Your task to perform on an android device: open app "Google Chat" Image 0: 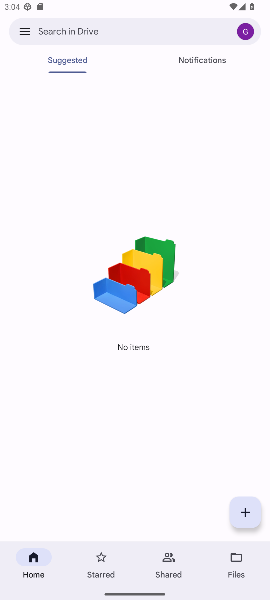
Step 0: press home button
Your task to perform on an android device: open app "Google Chat" Image 1: 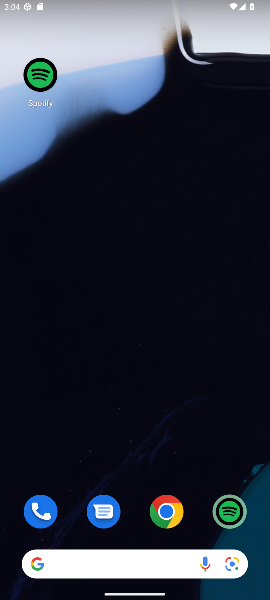
Step 1: drag from (139, 528) to (101, 120)
Your task to perform on an android device: open app "Google Chat" Image 2: 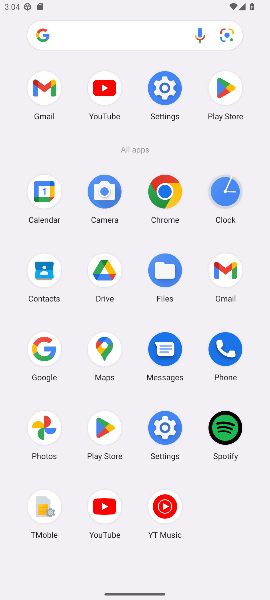
Step 2: click (220, 97)
Your task to perform on an android device: open app "Google Chat" Image 3: 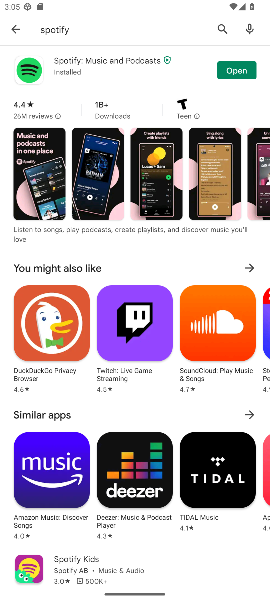
Step 3: click (11, 32)
Your task to perform on an android device: open app "Google Chat" Image 4: 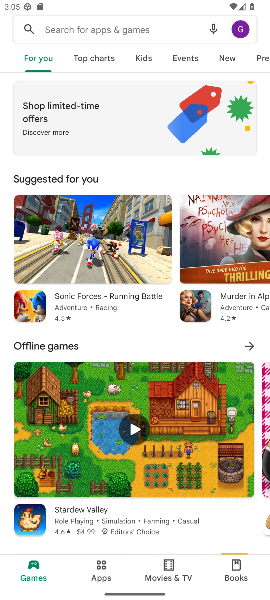
Step 4: click (103, 34)
Your task to perform on an android device: open app "Google Chat" Image 5: 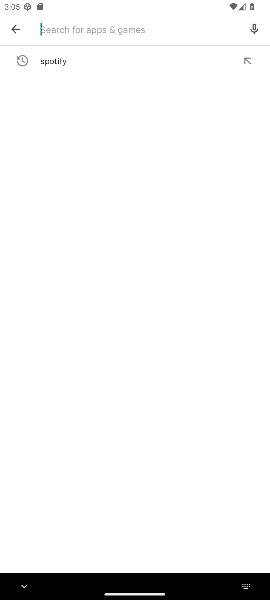
Step 5: type "google chat"
Your task to perform on an android device: open app "Google Chat" Image 6: 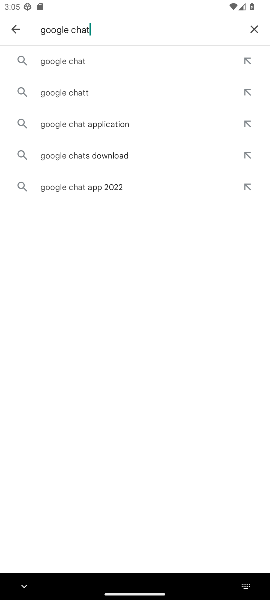
Step 6: click (66, 56)
Your task to perform on an android device: open app "Google Chat" Image 7: 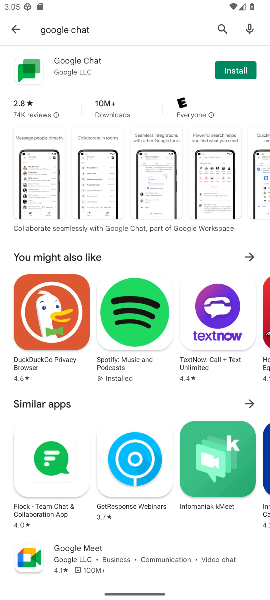
Step 7: click (240, 70)
Your task to perform on an android device: open app "Google Chat" Image 8: 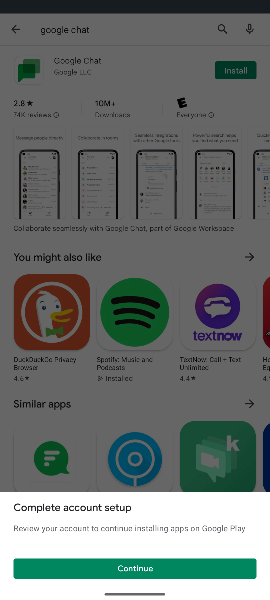
Step 8: click (121, 566)
Your task to perform on an android device: open app "Google Chat" Image 9: 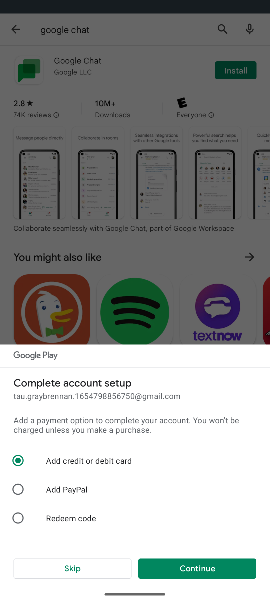
Step 9: click (105, 567)
Your task to perform on an android device: open app "Google Chat" Image 10: 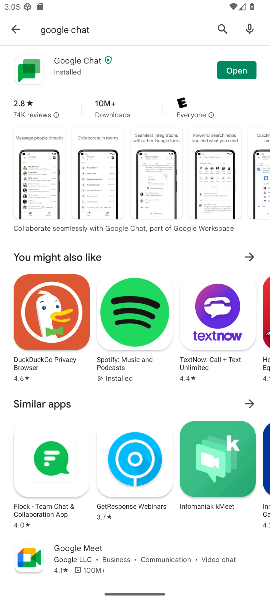
Step 10: click (232, 72)
Your task to perform on an android device: open app "Google Chat" Image 11: 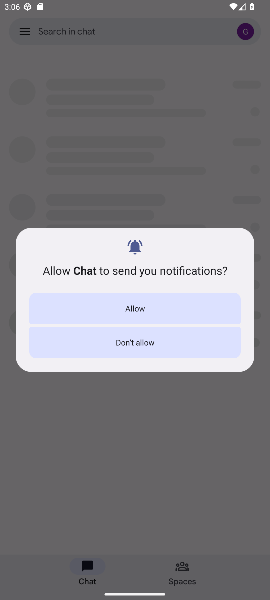
Step 11: click (121, 302)
Your task to perform on an android device: open app "Google Chat" Image 12: 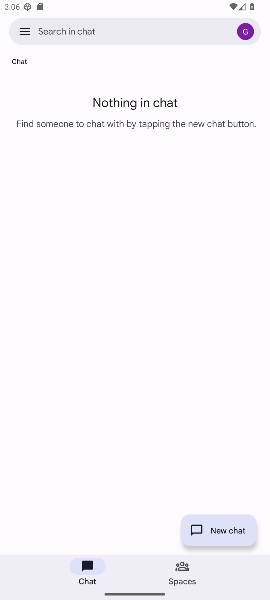
Step 12: task complete